Your task to perform on an android device: Go to sound settings Image 0: 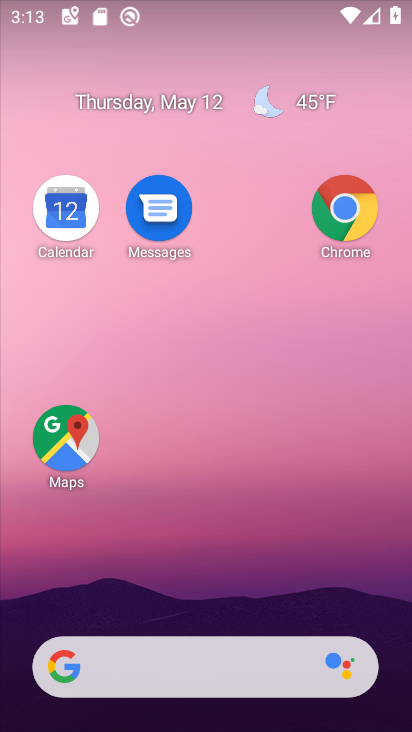
Step 0: drag from (189, 581) to (139, 71)
Your task to perform on an android device: Go to sound settings Image 1: 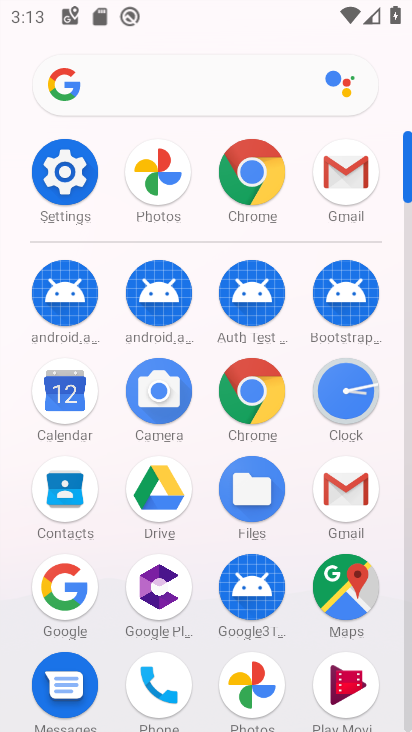
Step 1: click (80, 168)
Your task to perform on an android device: Go to sound settings Image 2: 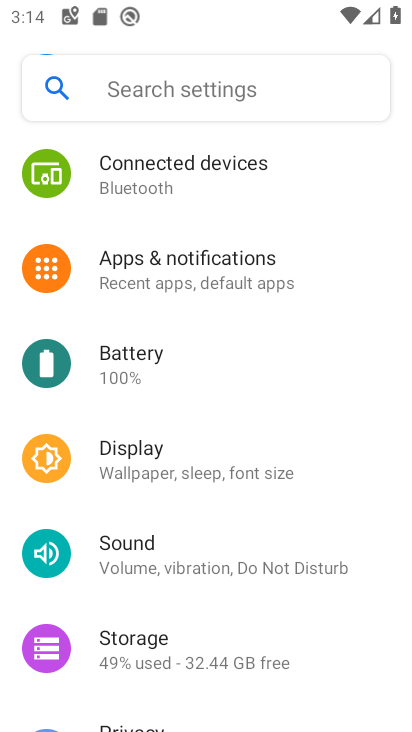
Step 2: drag from (160, 278) to (289, 232)
Your task to perform on an android device: Go to sound settings Image 3: 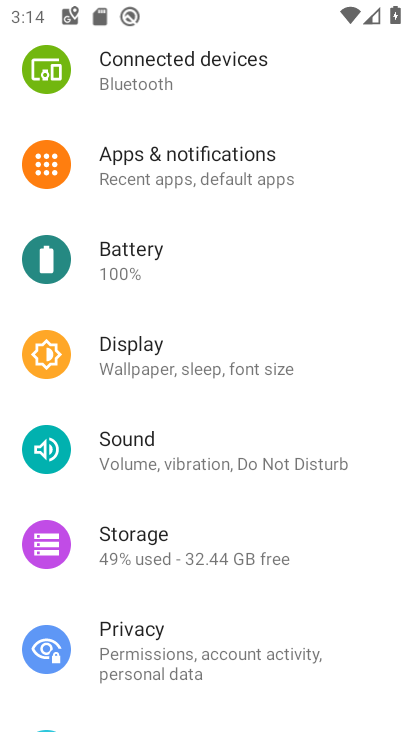
Step 3: click (176, 449)
Your task to perform on an android device: Go to sound settings Image 4: 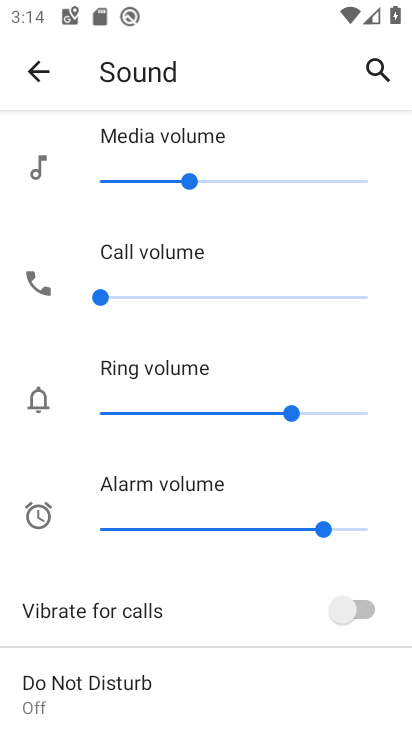
Step 4: task complete